Your task to perform on an android device: Open Youtube and go to the subscriptions tab Image 0: 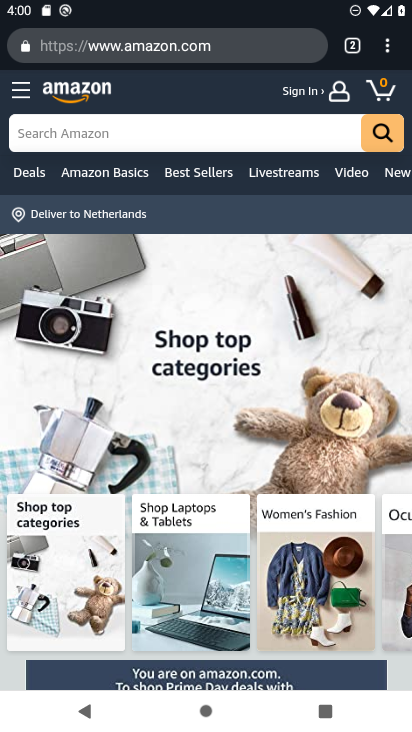
Step 0: press home button
Your task to perform on an android device: Open Youtube and go to the subscriptions tab Image 1: 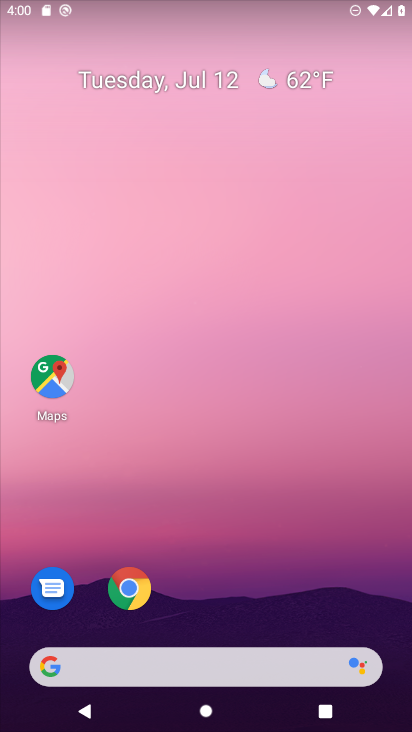
Step 1: drag from (245, 654) to (393, 0)
Your task to perform on an android device: Open Youtube and go to the subscriptions tab Image 2: 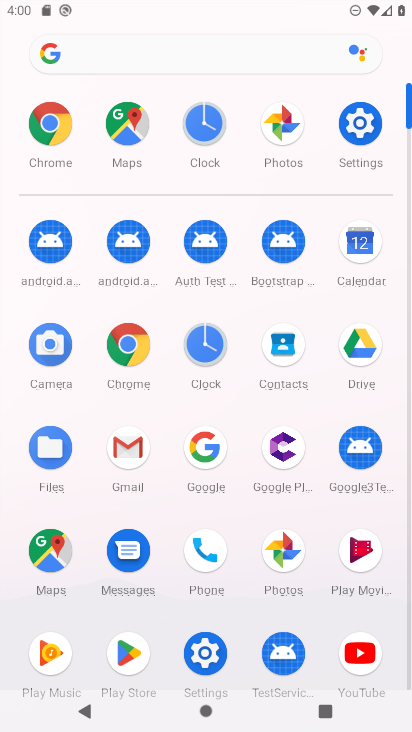
Step 2: click (360, 650)
Your task to perform on an android device: Open Youtube and go to the subscriptions tab Image 3: 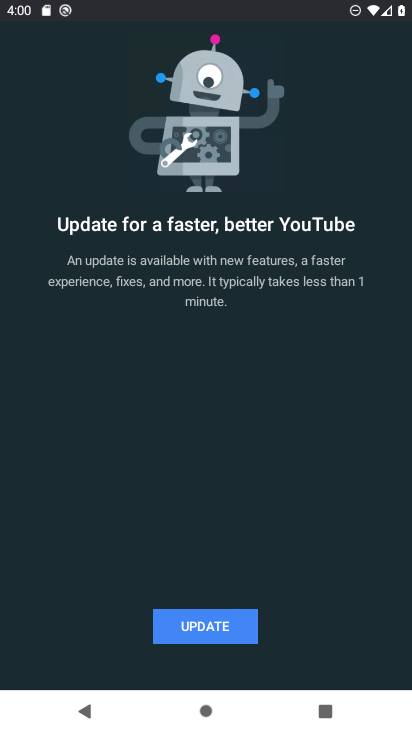
Step 3: click (231, 628)
Your task to perform on an android device: Open Youtube and go to the subscriptions tab Image 4: 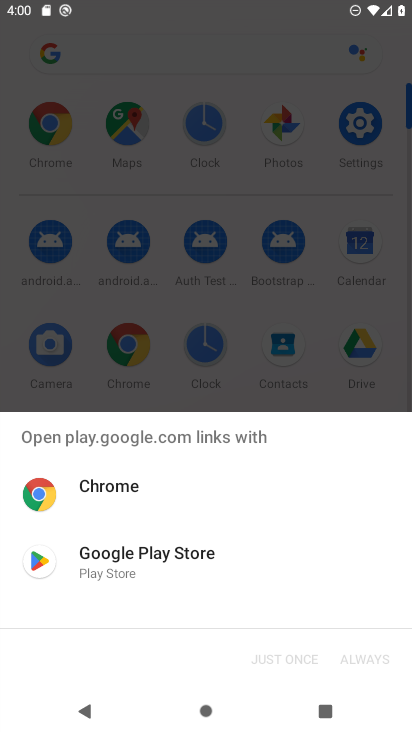
Step 4: click (168, 567)
Your task to perform on an android device: Open Youtube and go to the subscriptions tab Image 5: 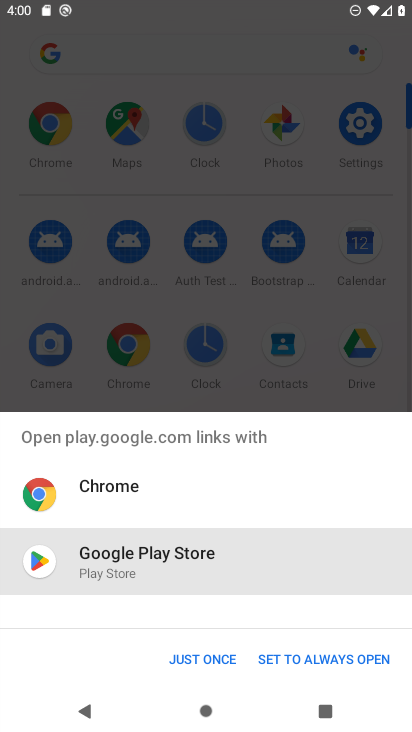
Step 5: click (207, 662)
Your task to perform on an android device: Open Youtube and go to the subscriptions tab Image 6: 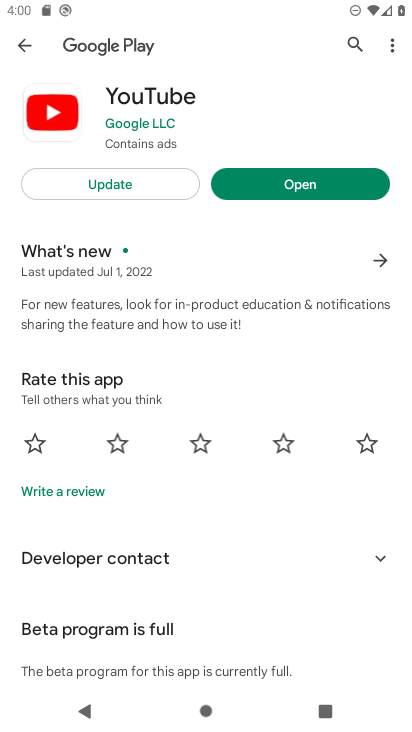
Step 6: click (125, 188)
Your task to perform on an android device: Open Youtube and go to the subscriptions tab Image 7: 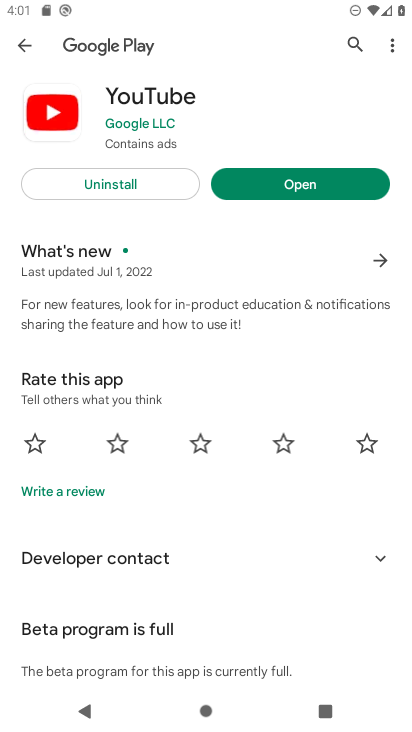
Step 7: click (303, 185)
Your task to perform on an android device: Open Youtube and go to the subscriptions tab Image 8: 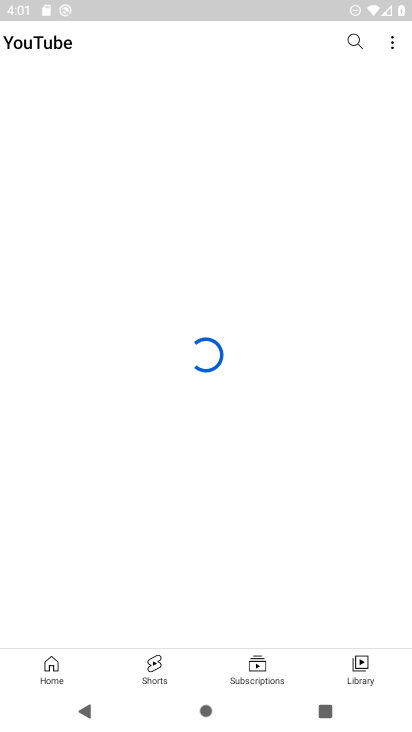
Step 8: click (366, 670)
Your task to perform on an android device: Open Youtube and go to the subscriptions tab Image 9: 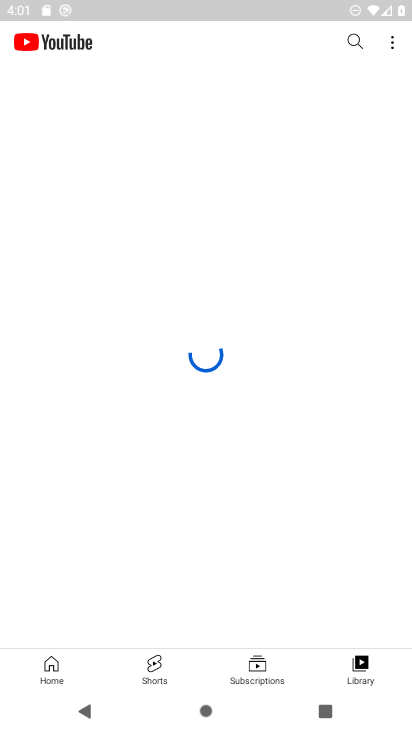
Step 9: click (254, 678)
Your task to perform on an android device: Open Youtube and go to the subscriptions tab Image 10: 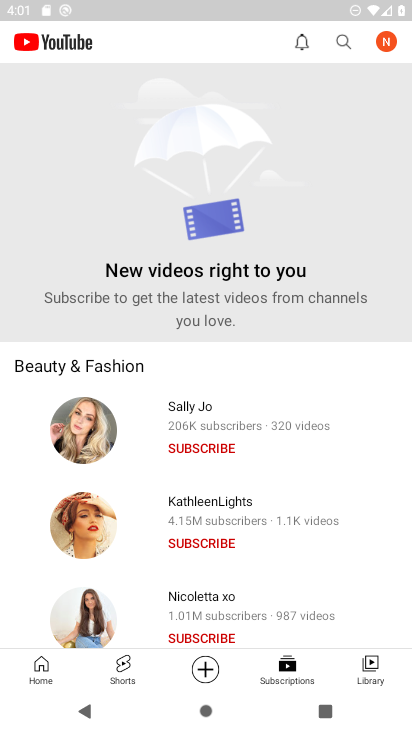
Step 10: task complete